Your task to perform on an android device: Open internet settings Image 0: 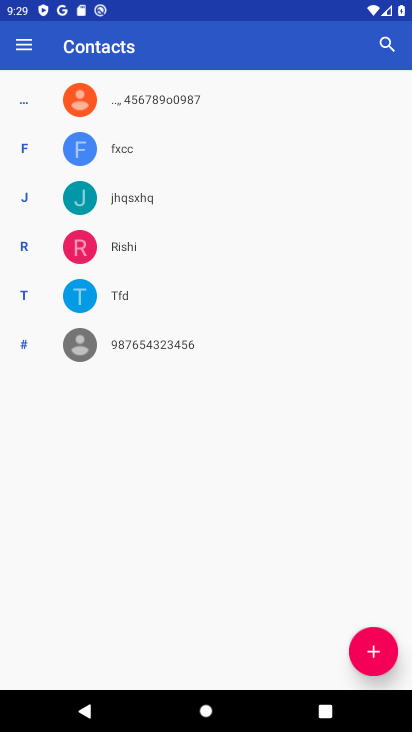
Step 0: press home button
Your task to perform on an android device: Open internet settings Image 1: 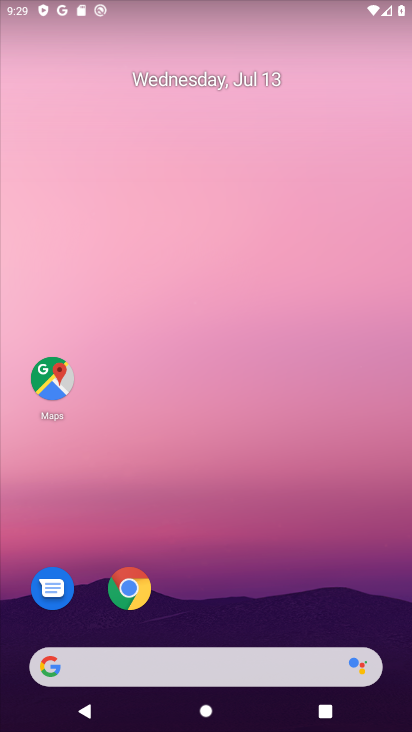
Step 1: drag from (221, 602) to (232, 121)
Your task to perform on an android device: Open internet settings Image 2: 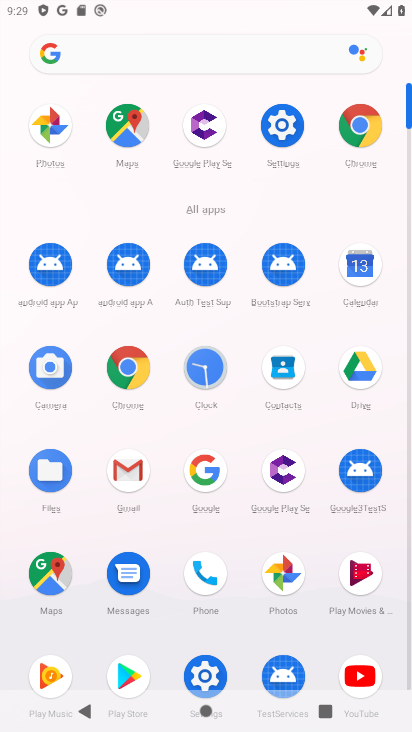
Step 2: click (285, 125)
Your task to perform on an android device: Open internet settings Image 3: 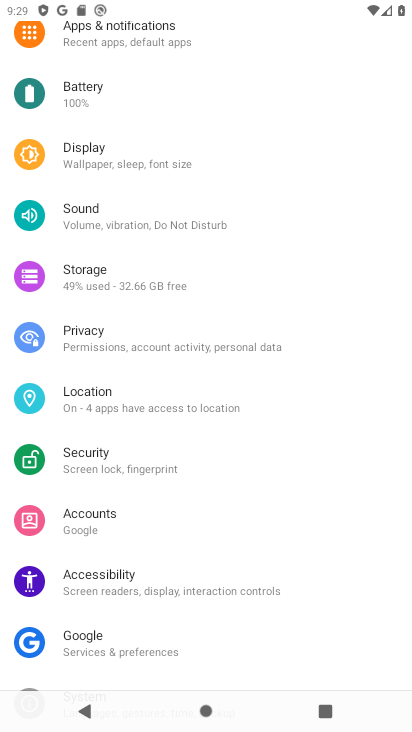
Step 3: drag from (184, 113) to (189, 483)
Your task to perform on an android device: Open internet settings Image 4: 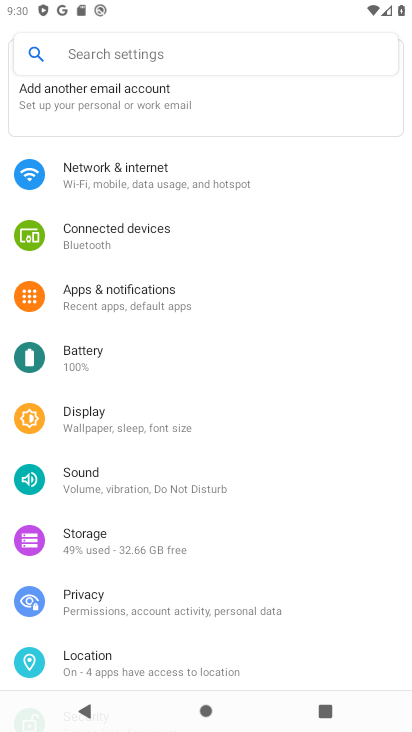
Step 4: click (147, 174)
Your task to perform on an android device: Open internet settings Image 5: 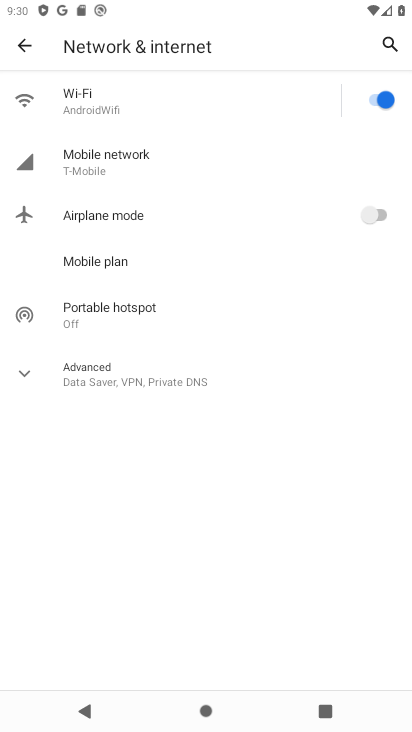
Step 5: click (116, 97)
Your task to perform on an android device: Open internet settings Image 6: 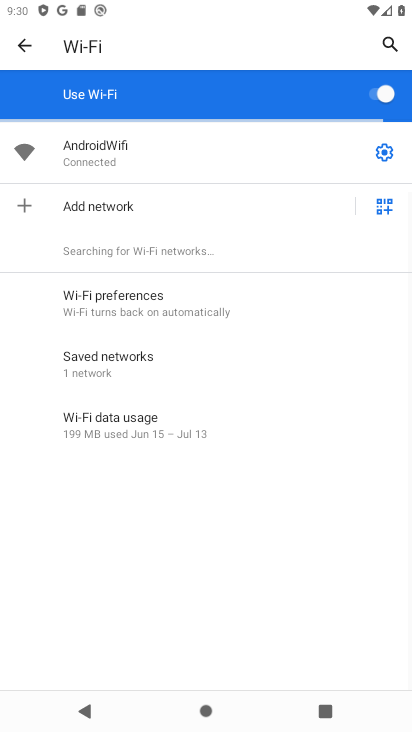
Step 6: click (386, 155)
Your task to perform on an android device: Open internet settings Image 7: 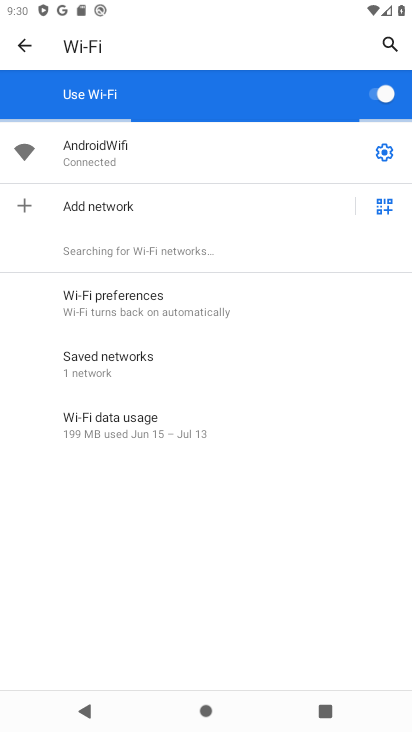
Step 7: click (206, 164)
Your task to perform on an android device: Open internet settings Image 8: 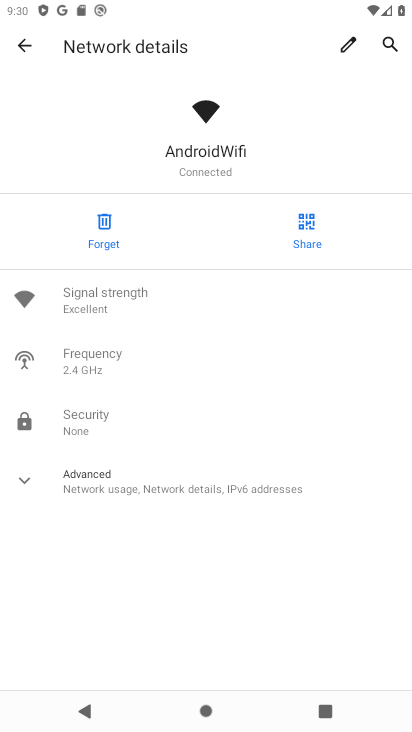
Step 8: task complete